Your task to perform on an android device: Show me productivity apps on the Play Store Image 0: 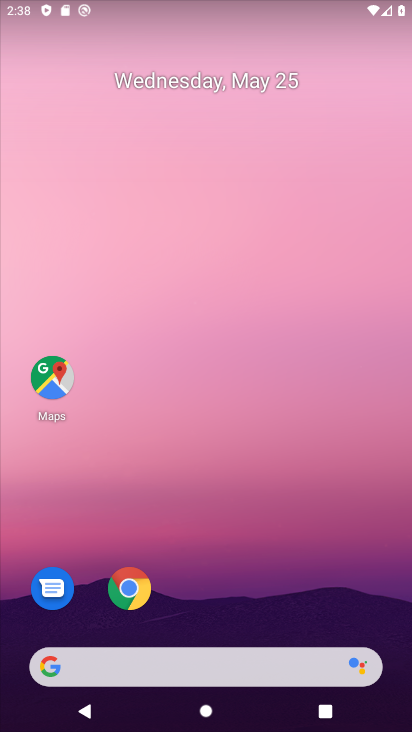
Step 0: press home button
Your task to perform on an android device: Show me productivity apps on the Play Store Image 1: 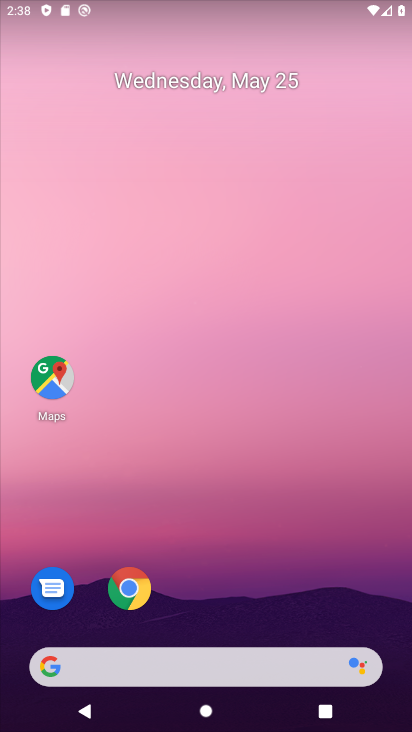
Step 1: drag from (249, 616) to (132, 9)
Your task to perform on an android device: Show me productivity apps on the Play Store Image 2: 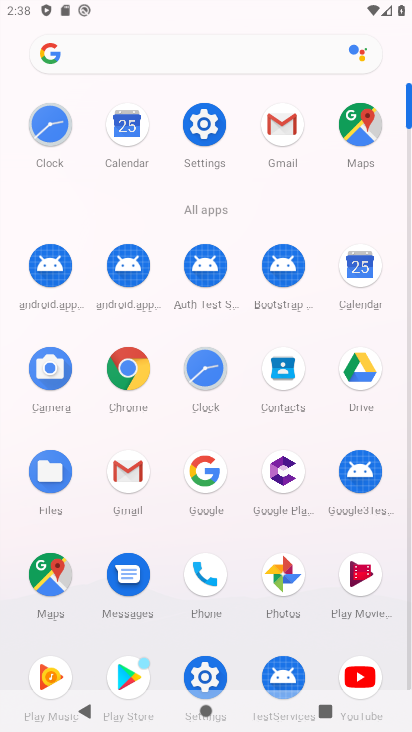
Step 2: click (125, 674)
Your task to perform on an android device: Show me productivity apps on the Play Store Image 3: 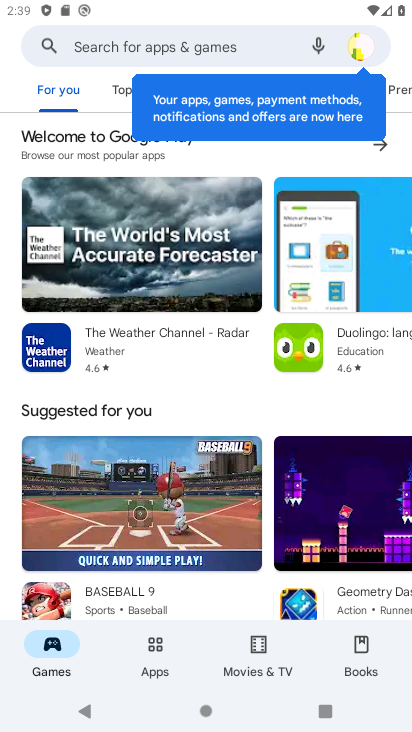
Step 3: click (84, 42)
Your task to perform on an android device: Show me productivity apps on the Play Store Image 4: 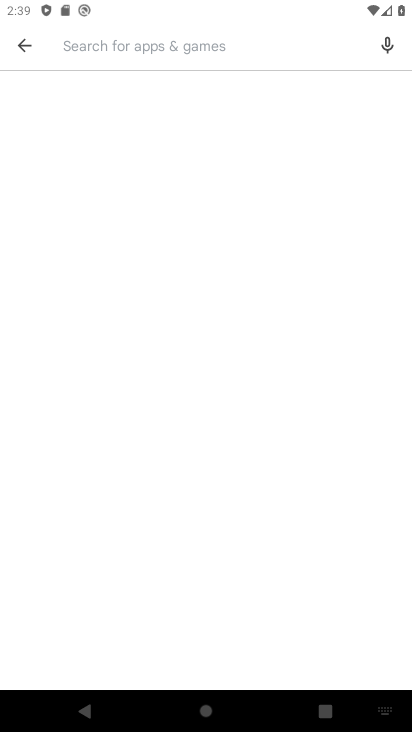
Step 4: type "productivity apps "
Your task to perform on an android device: Show me productivity apps on the Play Store Image 5: 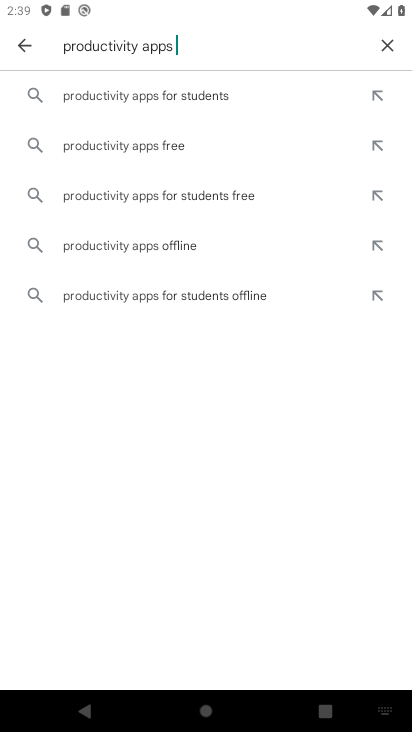
Step 5: click (127, 92)
Your task to perform on an android device: Show me productivity apps on the Play Store Image 6: 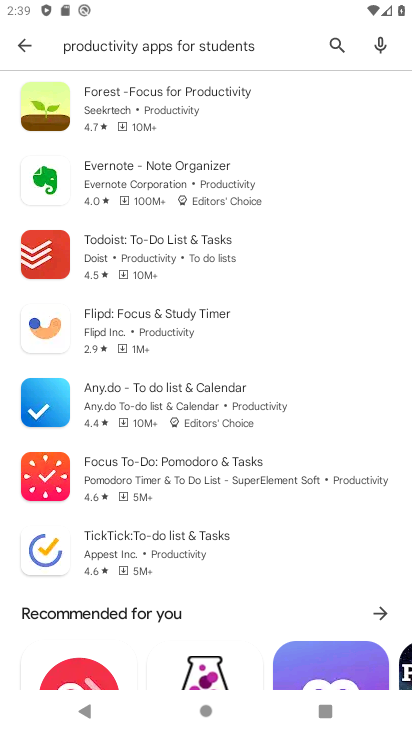
Step 6: task complete